Your task to perform on an android device: Open ESPN.com Image 0: 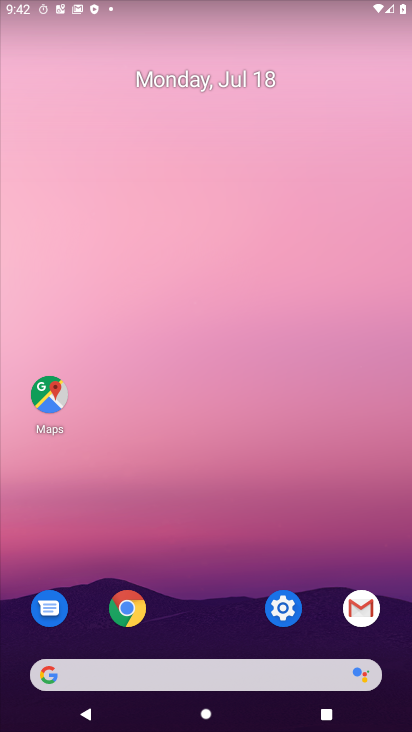
Step 0: press home button
Your task to perform on an android device: Open ESPN.com Image 1: 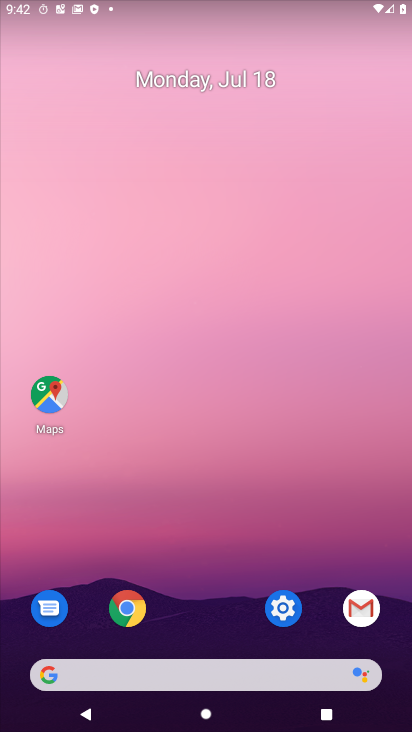
Step 1: click (146, 603)
Your task to perform on an android device: Open ESPN.com Image 2: 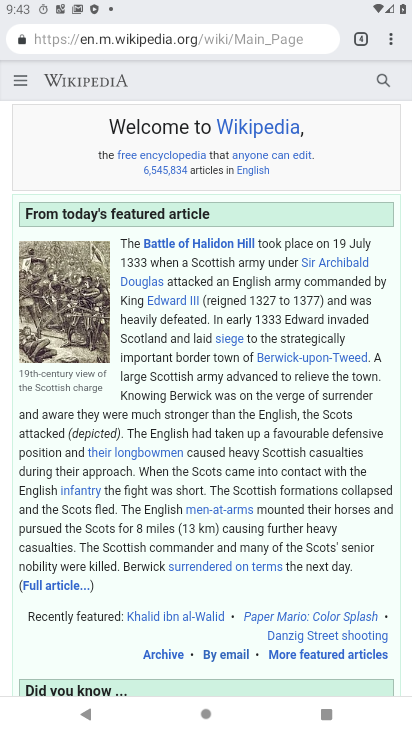
Step 2: click (355, 38)
Your task to perform on an android device: Open ESPN.com Image 3: 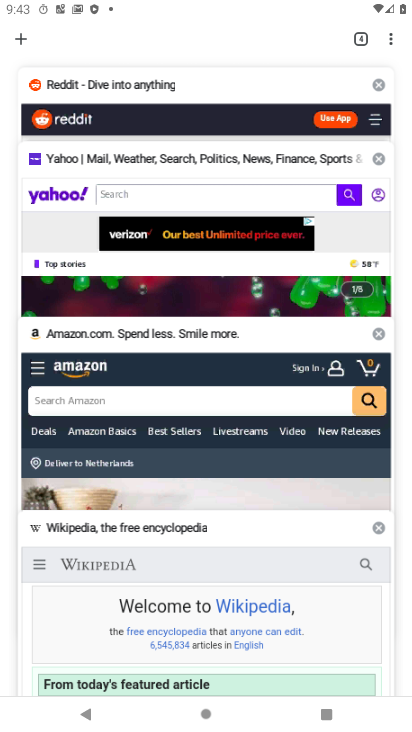
Step 3: click (16, 36)
Your task to perform on an android device: Open ESPN.com Image 4: 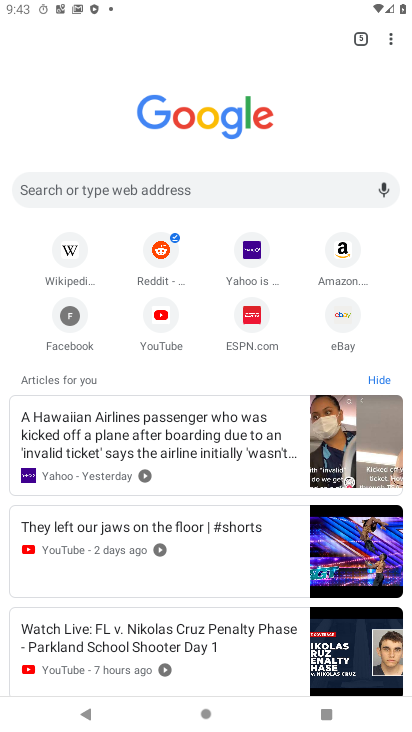
Step 4: click (253, 310)
Your task to perform on an android device: Open ESPN.com Image 5: 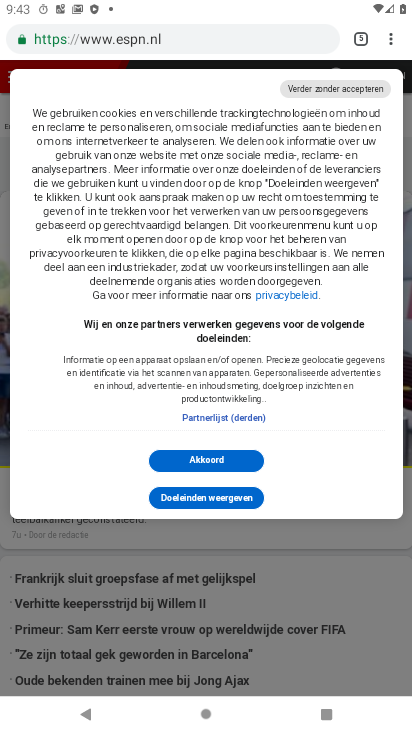
Step 5: click (202, 457)
Your task to perform on an android device: Open ESPN.com Image 6: 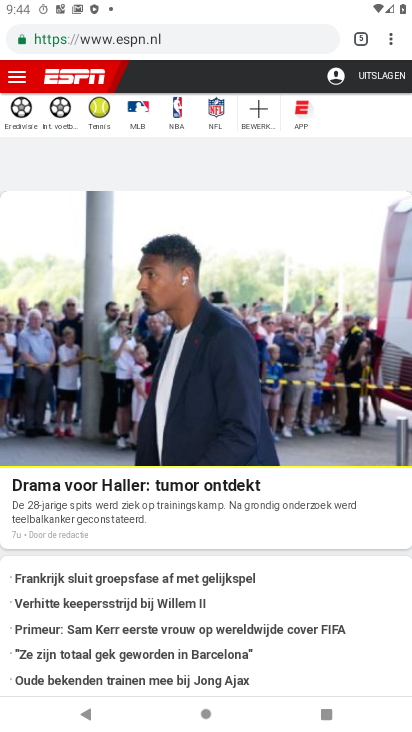
Step 6: task complete